Your task to perform on an android device: Search for Mexican restaurants on Maps Image 0: 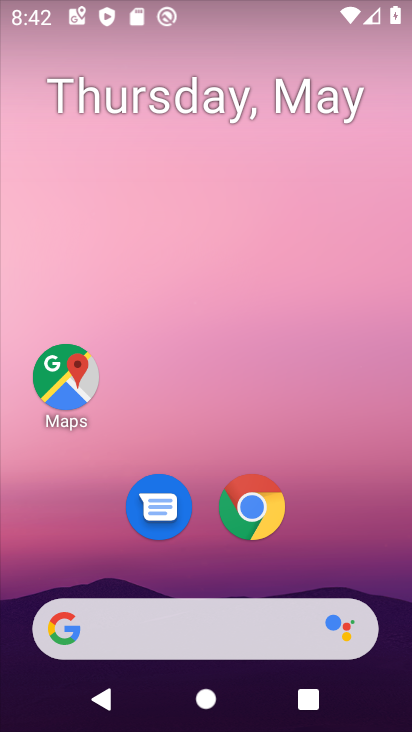
Step 0: drag from (240, 639) to (259, 195)
Your task to perform on an android device: Search for Mexican restaurants on Maps Image 1: 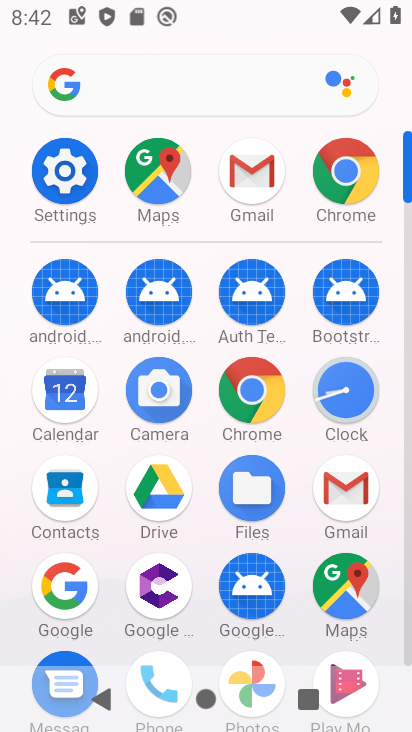
Step 1: click (331, 572)
Your task to perform on an android device: Search for Mexican restaurants on Maps Image 2: 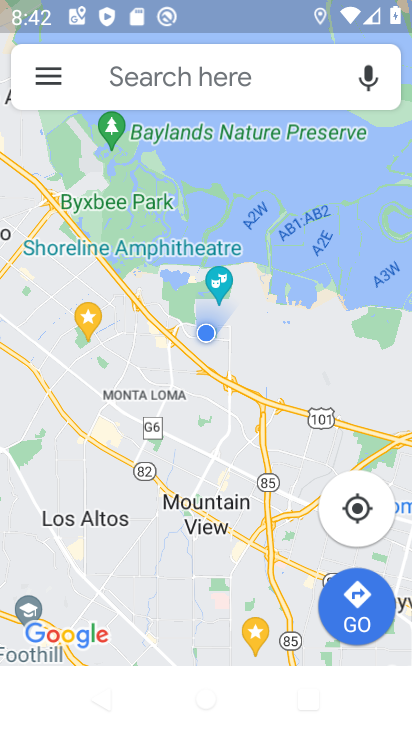
Step 2: click (161, 80)
Your task to perform on an android device: Search for Mexican restaurants on Maps Image 3: 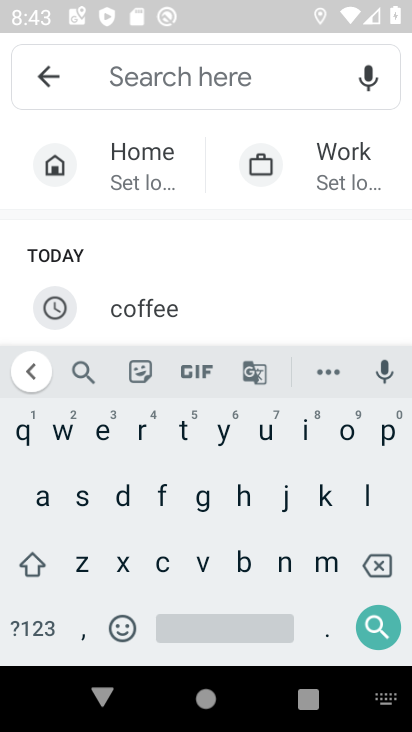
Step 3: click (318, 551)
Your task to perform on an android device: Search for Mexican restaurants on Maps Image 4: 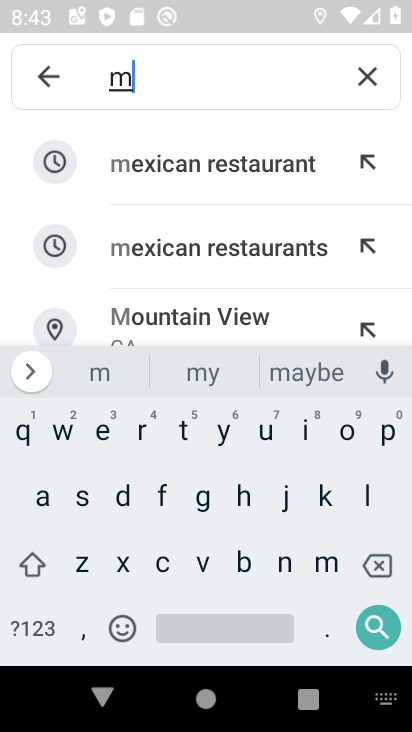
Step 4: click (222, 165)
Your task to perform on an android device: Search for Mexican restaurants on Maps Image 5: 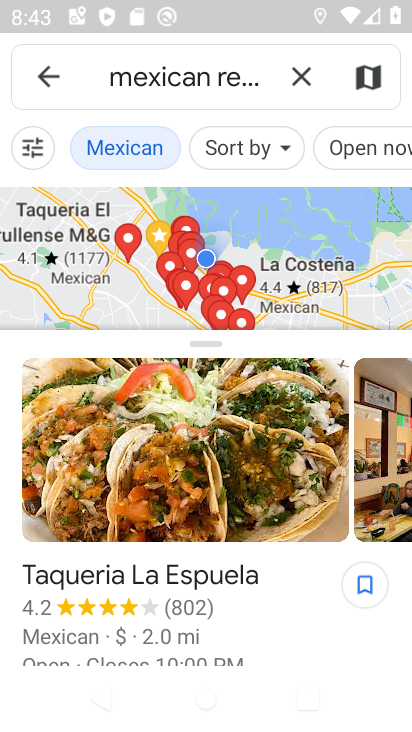
Step 5: click (95, 276)
Your task to perform on an android device: Search for Mexican restaurants on Maps Image 6: 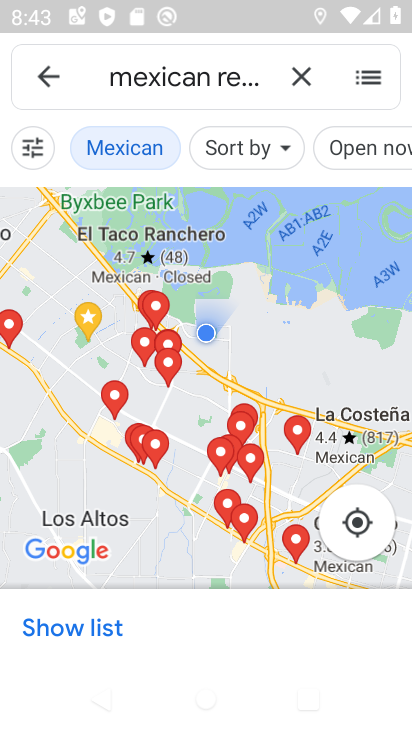
Step 6: task complete